Your task to perform on an android device: set default search engine in the chrome app Image 0: 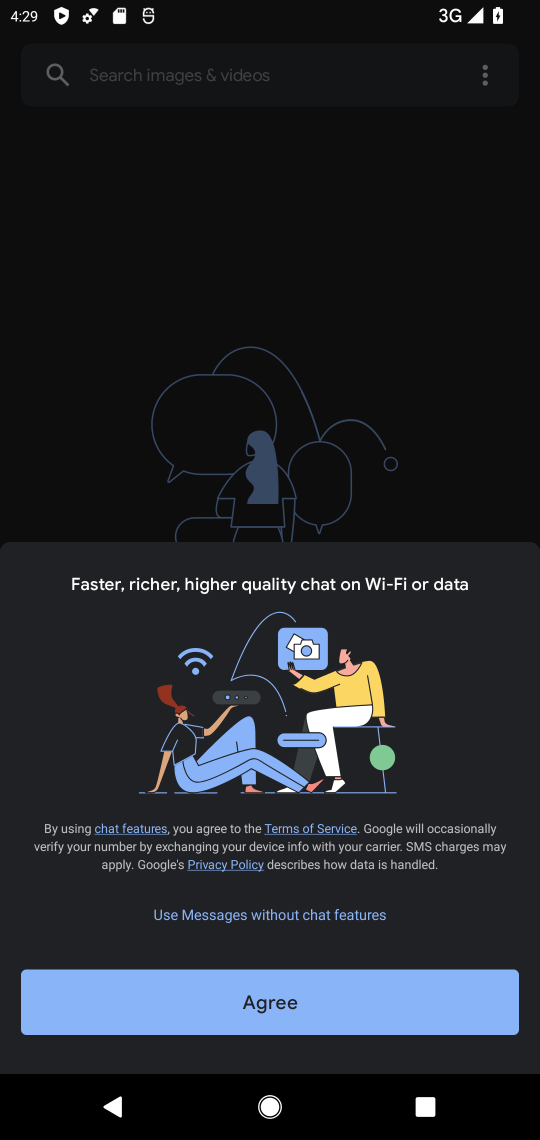
Step 0: task complete